Your task to perform on an android device: What's the weather? Image 0: 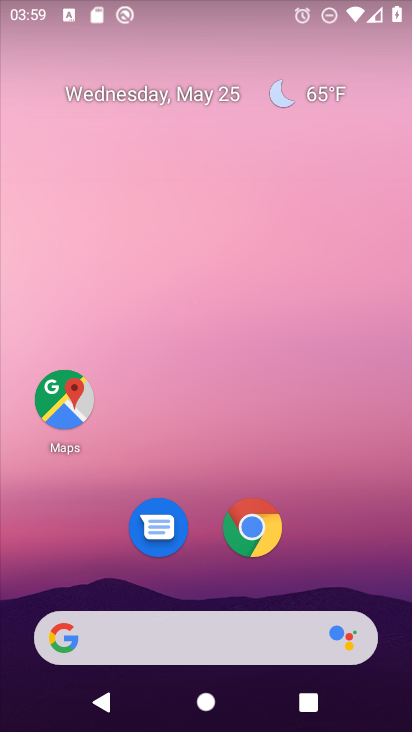
Step 0: drag from (294, 632) to (338, 55)
Your task to perform on an android device: What's the weather? Image 1: 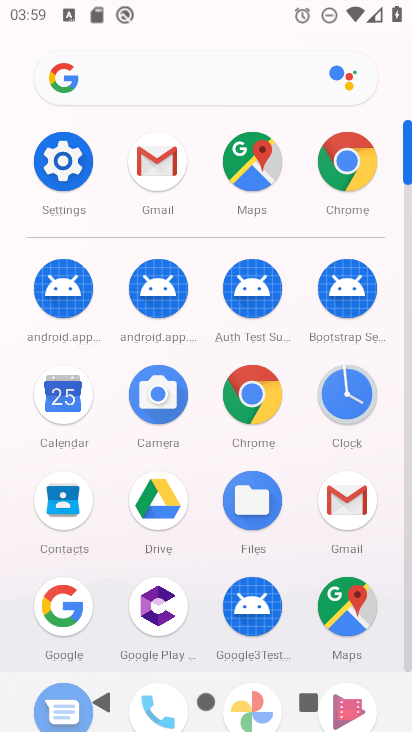
Step 1: press home button
Your task to perform on an android device: What's the weather? Image 2: 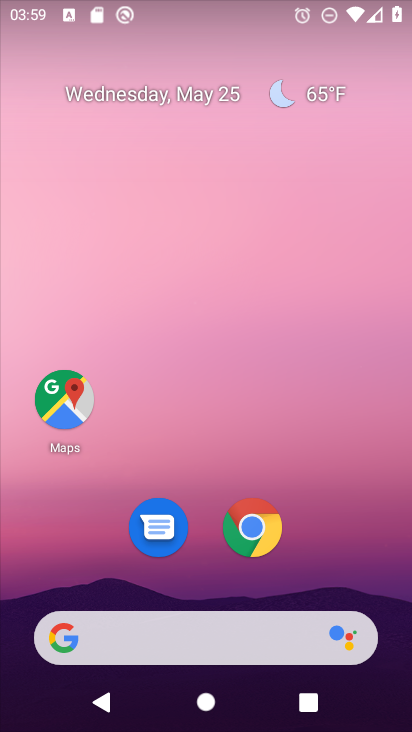
Step 2: drag from (69, 182) to (411, 244)
Your task to perform on an android device: What's the weather? Image 3: 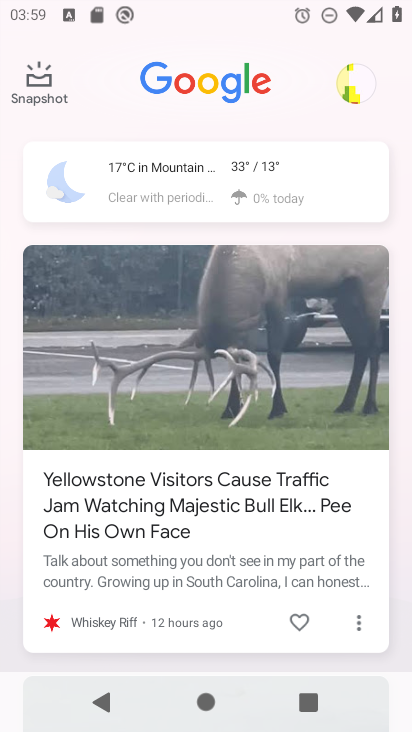
Step 3: click (227, 201)
Your task to perform on an android device: What's the weather? Image 4: 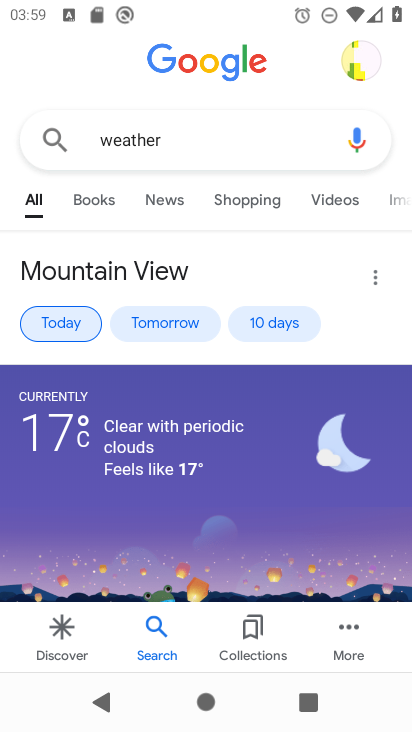
Step 4: task complete